Your task to perform on an android device: turn off airplane mode Image 0: 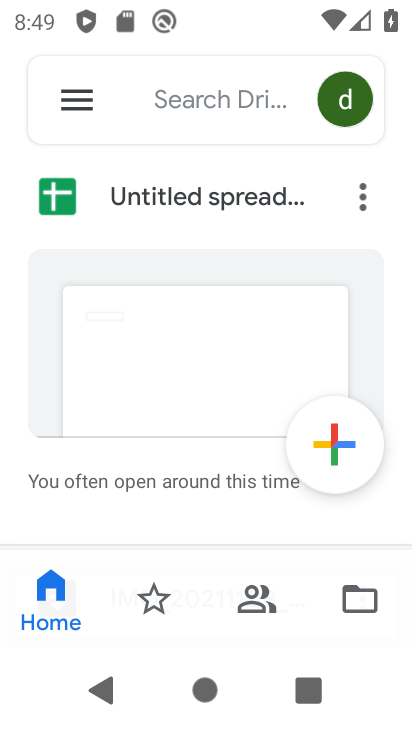
Step 0: press home button
Your task to perform on an android device: turn off airplane mode Image 1: 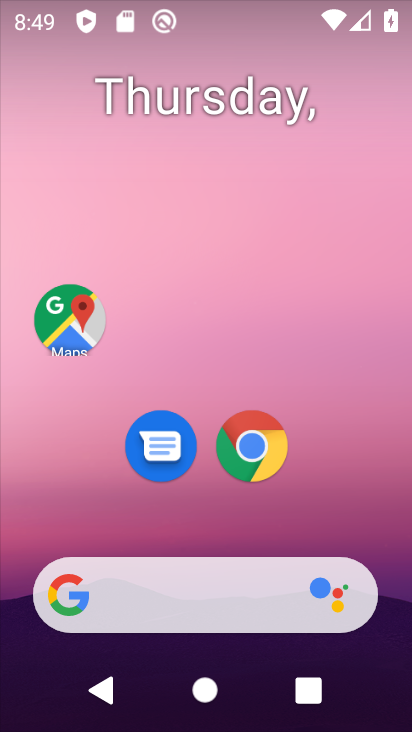
Step 1: task complete